Your task to perform on an android device: turn on the 12-hour format for clock Image 0: 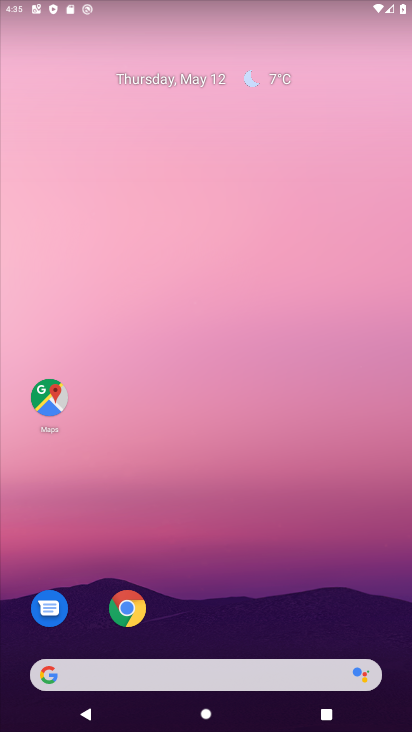
Step 0: drag from (206, 619) to (246, 152)
Your task to perform on an android device: turn on the 12-hour format for clock Image 1: 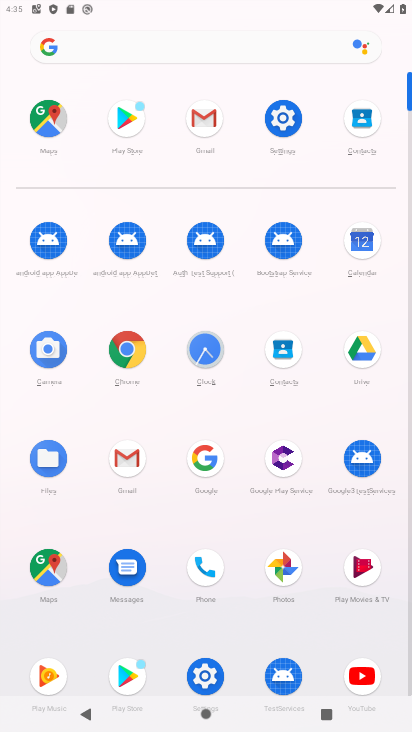
Step 1: click (282, 122)
Your task to perform on an android device: turn on the 12-hour format for clock Image 2: 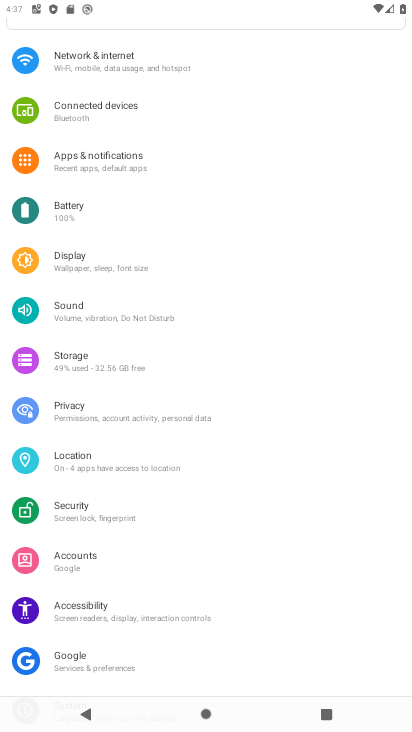
Step 2: task complete